Your task to perform on an android device: open sync settings in chrome Image 0: 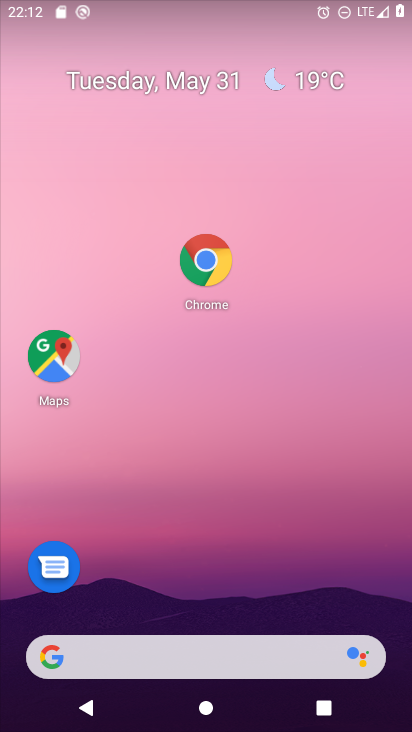
Step 0: click (213, 262)
Your task to perform on an android device: open sync settings in chrome Image 1: 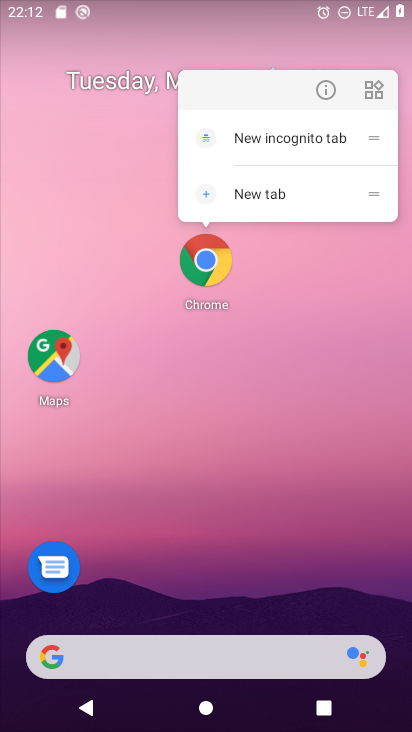
Step 1: click (213, 265)
Your task to perform on an android device: open sync settings in chrome Image 2: 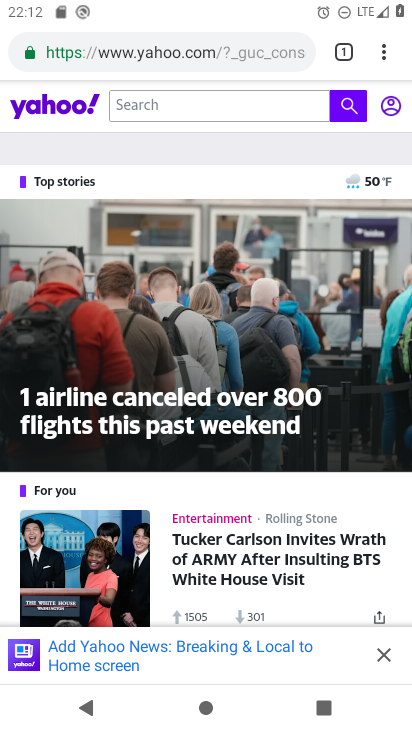
Step 2: click (380, 56)
Your task to perform on an android device: open sync settings in chrome Image 3: 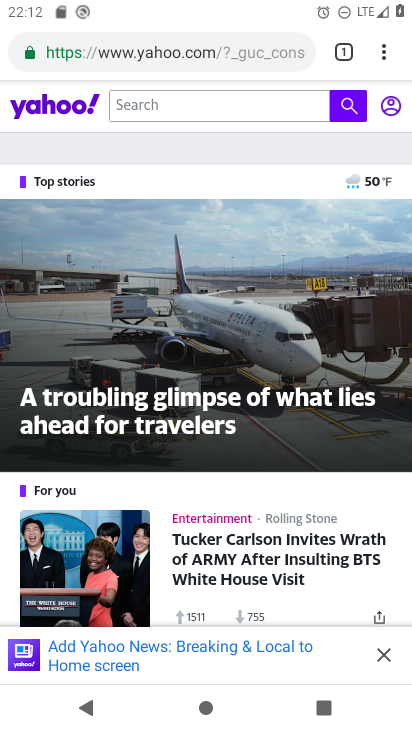
Step 3: click (381, 41)
Your task to perform on an android device: open sync settings in chrome Image 4: 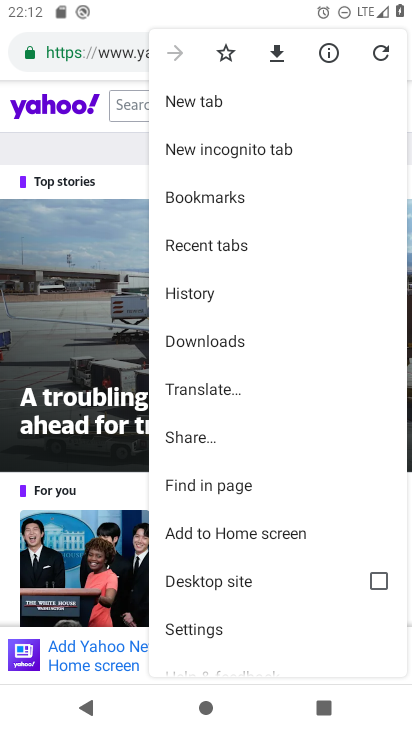
Step 4: click (201, 626)
Your task to perform on an android device: open sync settings in chrome Image 5: 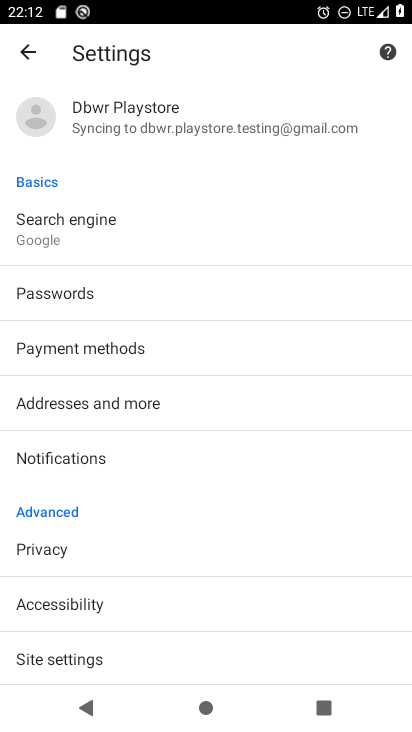
Step 5: click (193, 127)
Your task to perform on an android device: open sync settings in chrome Image 6: 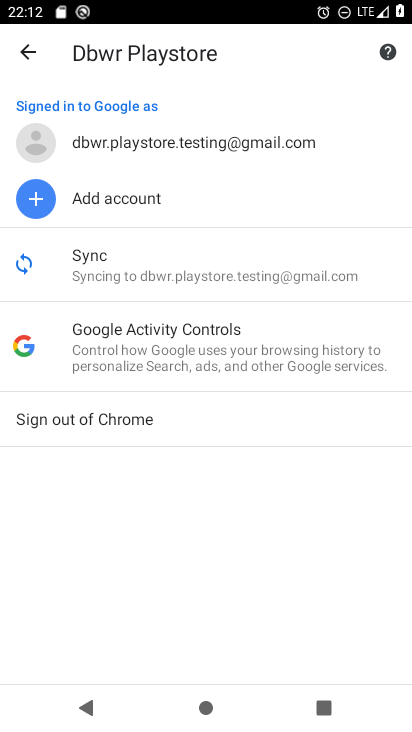
Step 6: click (140, 269)
Your task to perform on an android device: open sync settings in chrome Image 7: 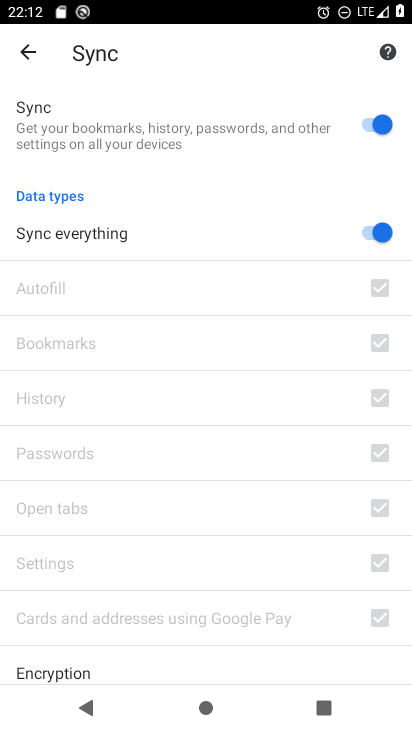
Step 7: task complete